Your task to perform on an android device: Go to Reddit.com Image 0: 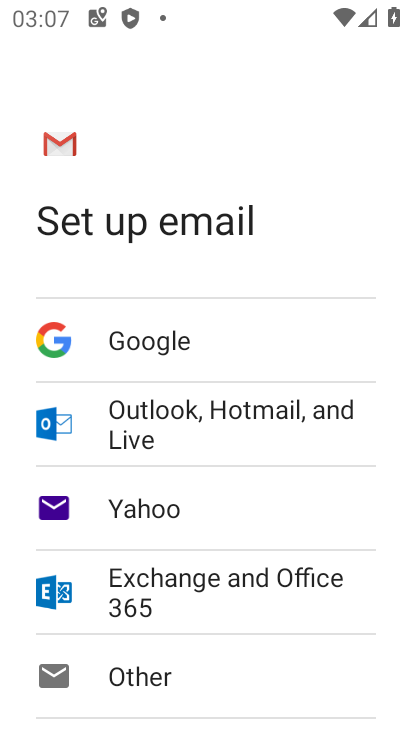
Step 0: press home button
Your task to perform on an android device: Go to Reddit.com Image 1: 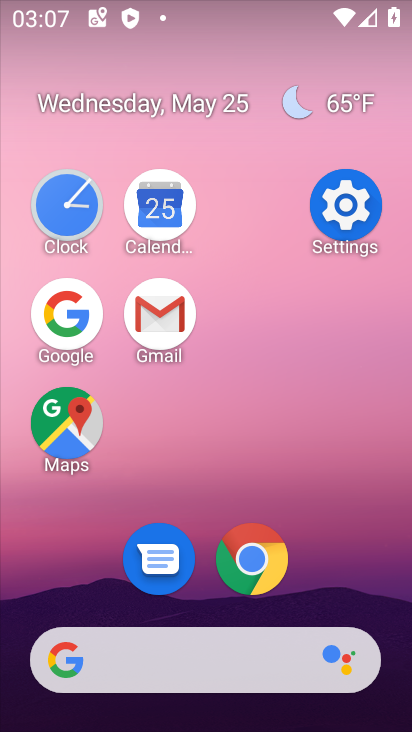
Step 1: click (245, 558)
Your task to perform on an android device: Go to Reddit.com Image 2: 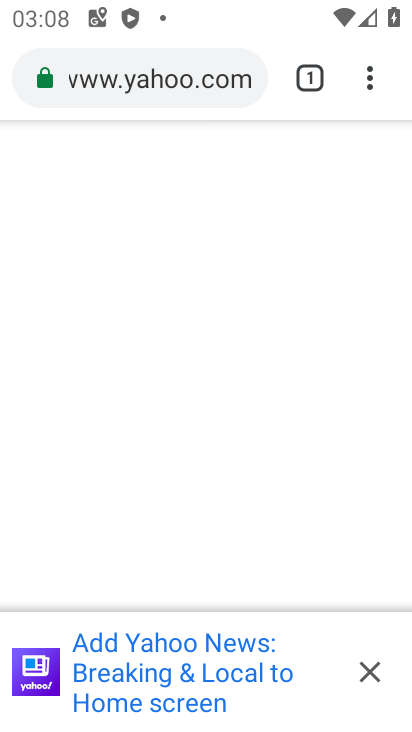
Step 2: click (291, 95)
Your task to perform on an android device: Go to Reddit.com Image 3: 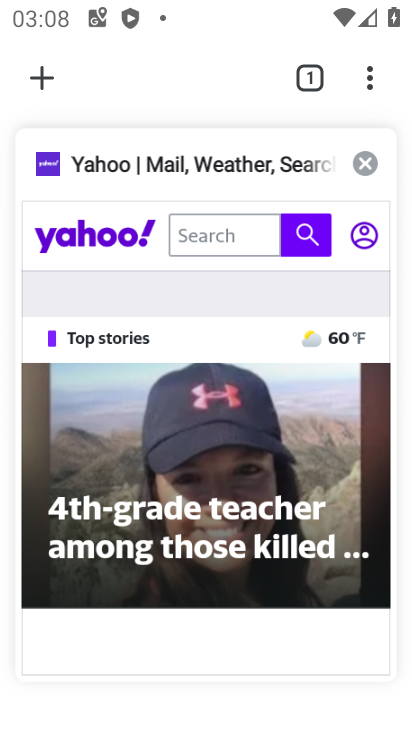
Step 3: click (301, 88)
Your task to perform on an android device: Go to Reddit.com Image 4: 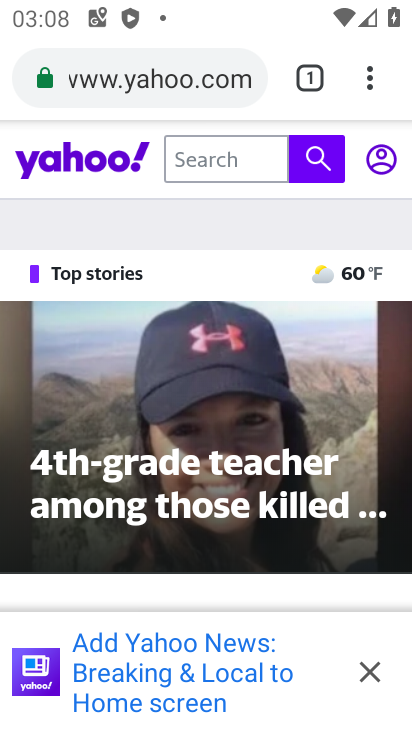
Step 4: click (313, 80)
Your task to perform on an android device: Go to Reddit.com Image 5: 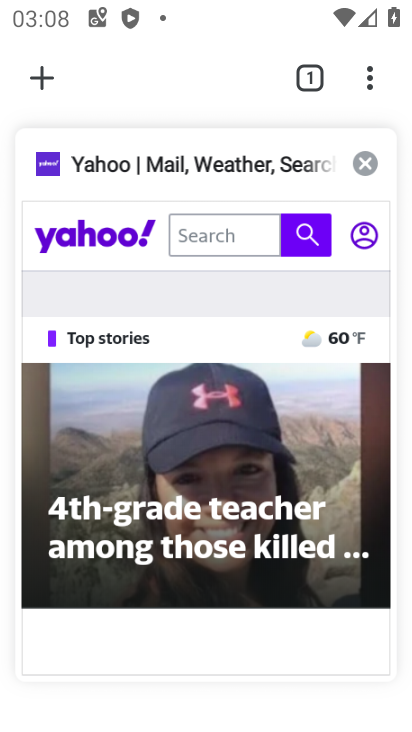
Step 5: click (52, 78)
Your task to perform on an android device: Go to Reddit.com Image 6: 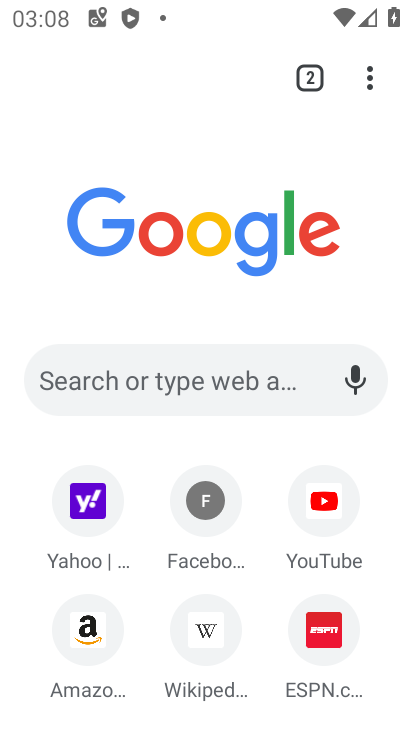
Step 6: click (196, 376)
Your task to perform on an android device: Go to Reddit.com Image 7: 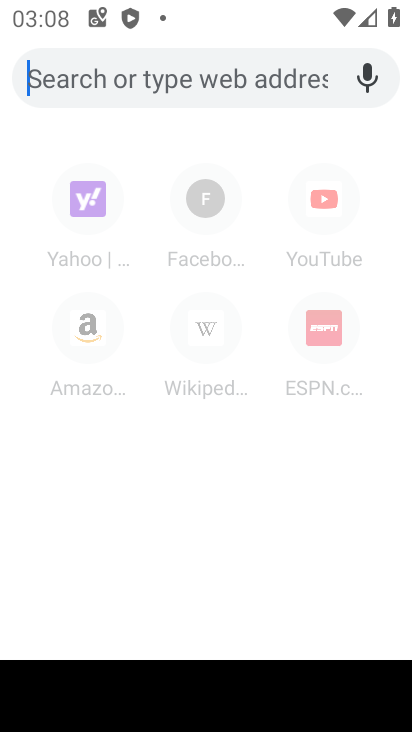
Step 7: type "reddit"
Your task to perform on an android device: Go to Reddit.com Image 8: 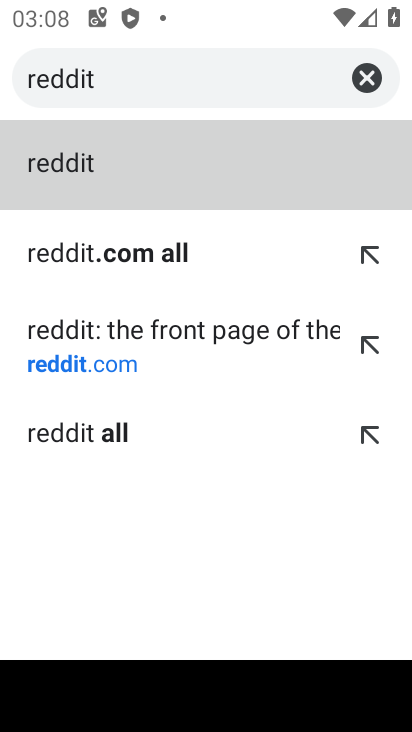
Step 8: click (122, 362)
Your task to perform on an android device: Go to Reddit.com Image 9: 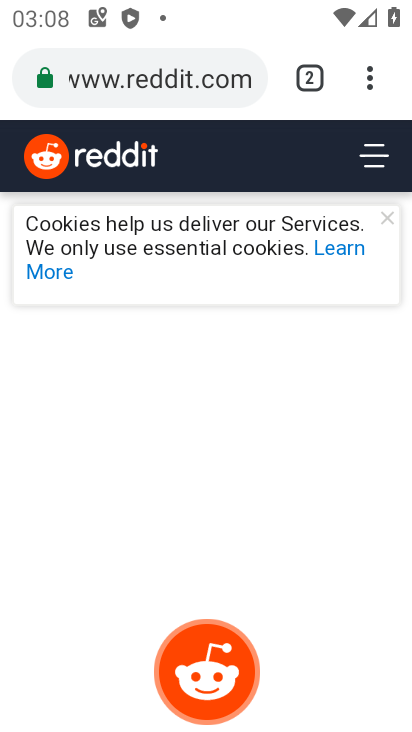
Step 9: task complete